Your task to perform on an android device: Open battery settings Image 0: 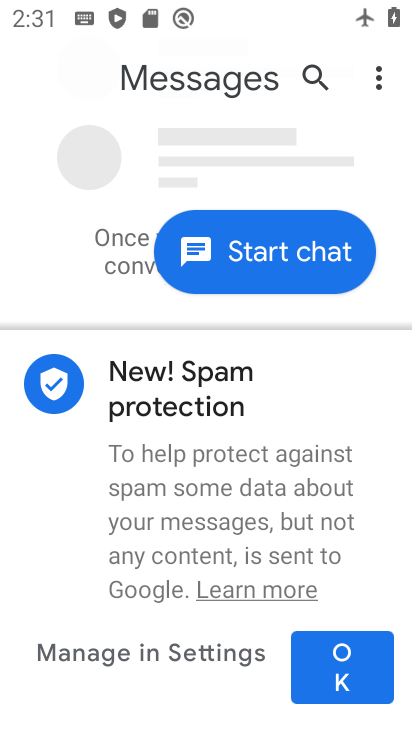
Step 0: press home button
Your task to perform on an android device: Open battery settings Image 1: 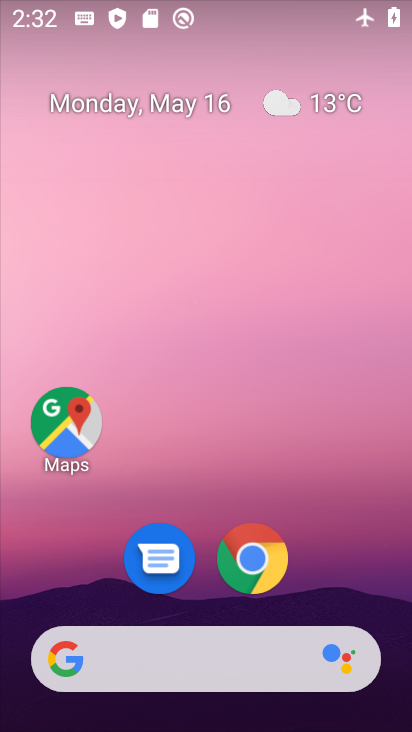
Step 1: drag from (157, 628) to (59, 46)
Your task to perform on an android device: Open battery settings Image 2: 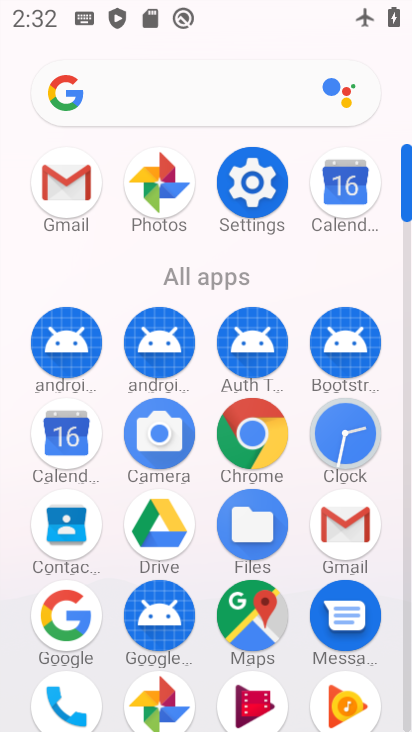
Step 2: click (268, 187)
Your task to perform on an android device: Open battery settings Image 3: 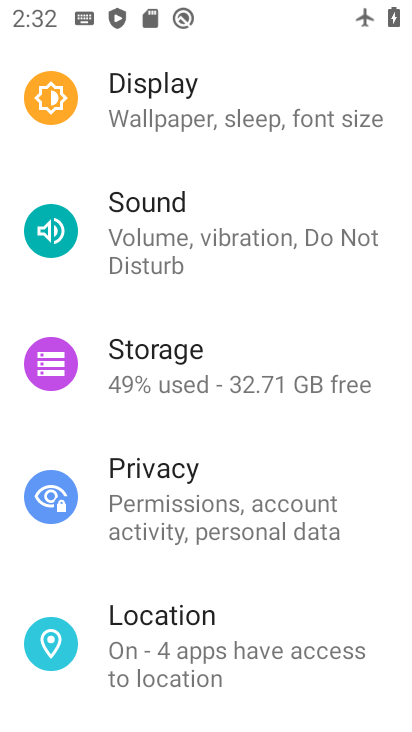
Step 3: drag from (149, 226) to (122, 712)
Your task to perform on an android device: Open battery settings Image 4: 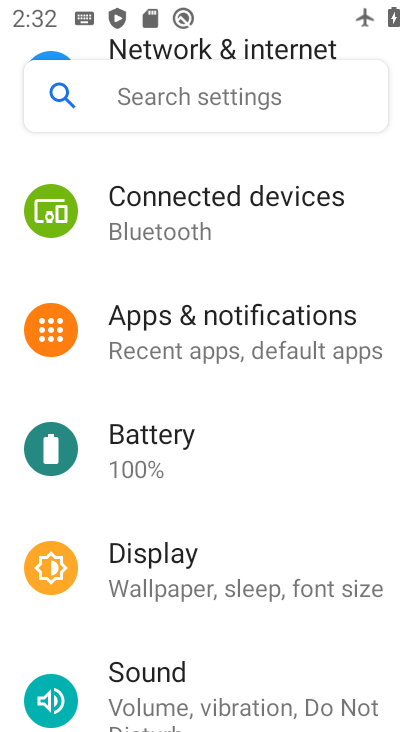
Step 4: click (80, 470)
Your task to perform on an android device: Open battery settings Image 5: 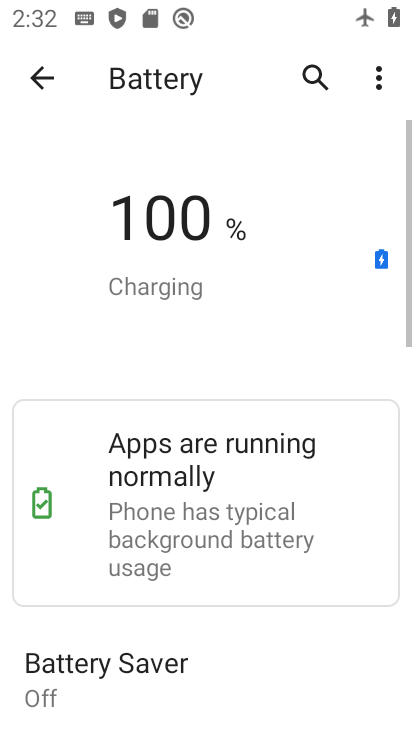
Step 5: task complete